Your task to perform on an android device: open a new tab in the chrome app Image 0: 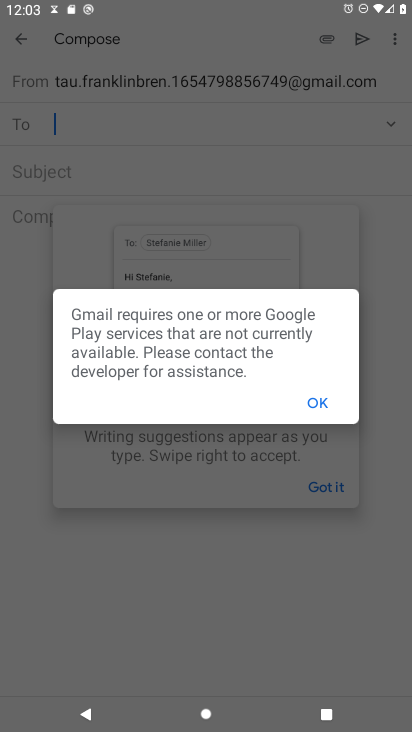
Step 0: press home button
Your task to perform on an android device: open a new tab in the chrome app Image 1: 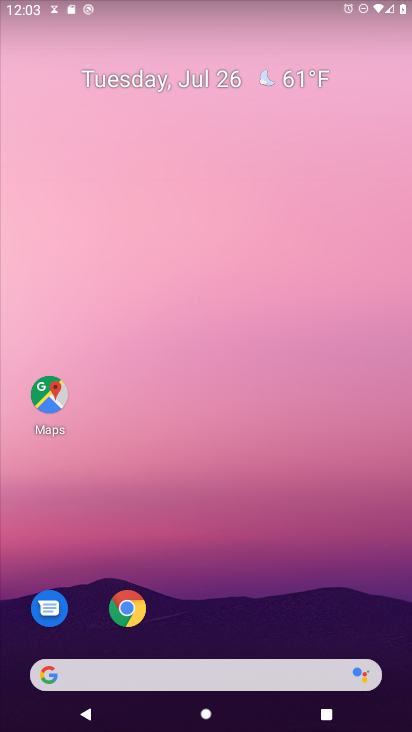
Step 1: click (126, 608)
Your task to perform on an android device: open a new tab in the chrome app Image 2: 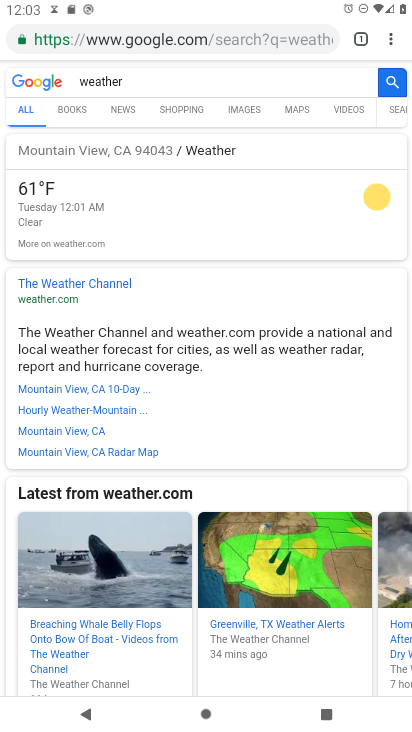
Step 2: click (391, 39)
Your task to perform on an android device: open a new tab in the chrome app Image 3: 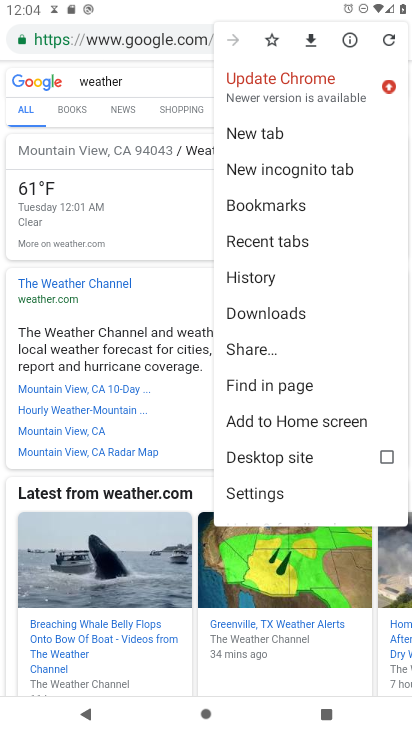
Step 3: click (253, 131)
Your task to perform on an android device: open a new tab in the chrome app Image 4: 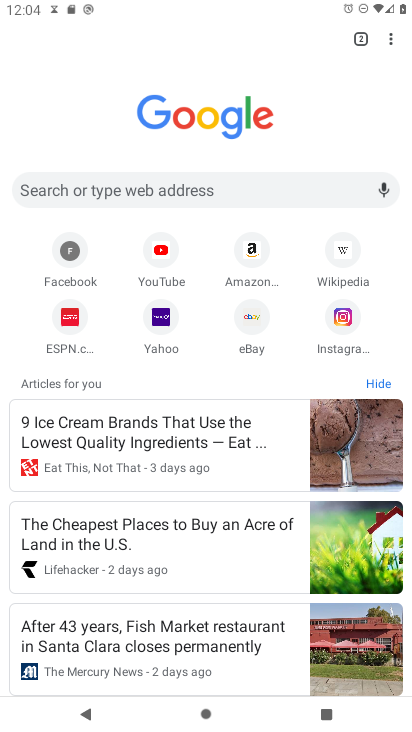
Step 4: task complete